Your task to perform on an android device: Is it going to rain this weekend? Image 0: 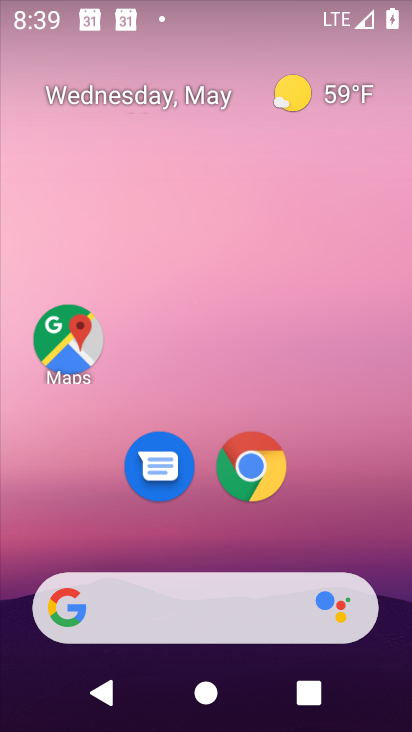
Step 0: click (249, 461)
Your task to perform on an android device: Is it going to rain this weekend? Image 1: 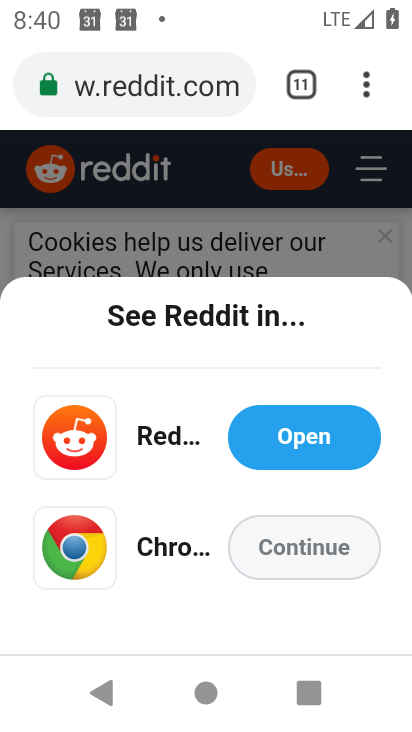
Step 1: press home button
Your task to perform on an android device: Is it going to rain this weekend? Image 2: 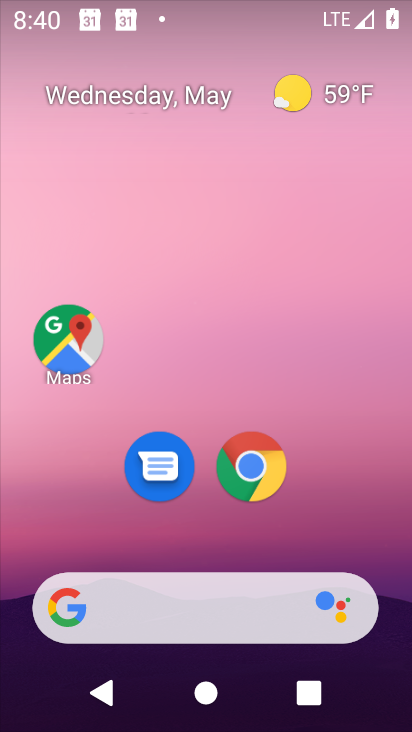
Step 2: click (252, 463)
Your task to perform on an android device: Is it going to rain this weekend? Image 3: 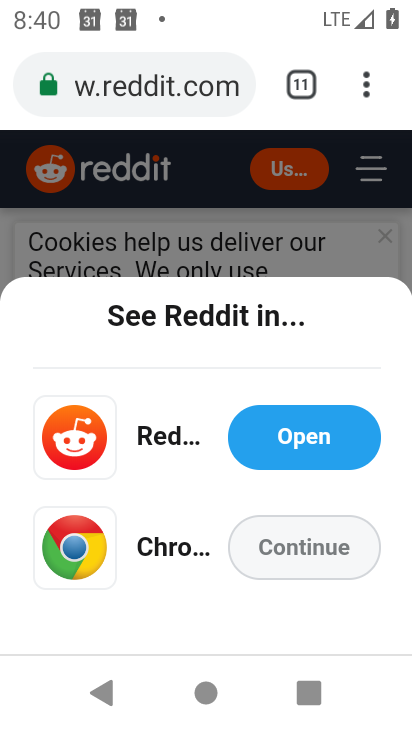
Step 3: click (338, 87)
Your task to perform on an android device: Is it going to rain this weekend? Image 4: 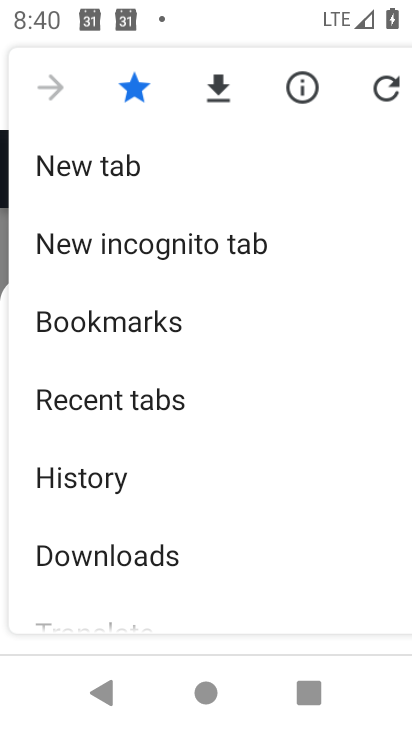
Step 4: click (76, 162)
Your task to perform on an android device: Is it going to rain this weekend? Image 5: 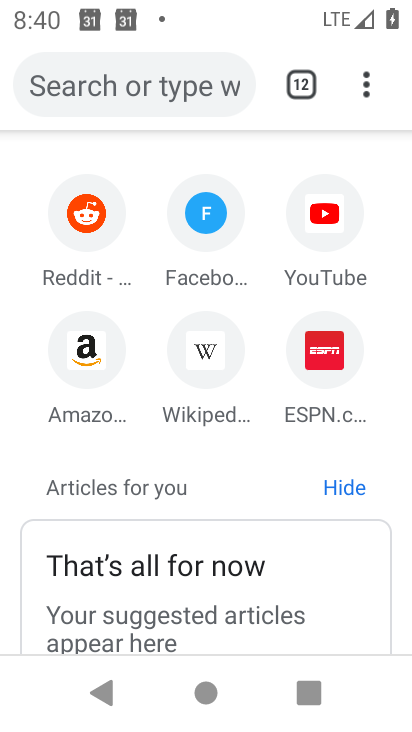
Step 5: click (140, 62)
Your task to perform on an android device: Is it going to rain this weekend? Image 6: 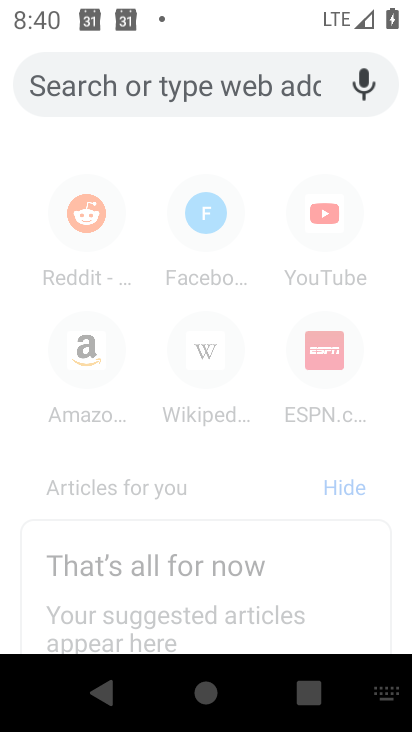
Step 6: type "Is it going to rain this weekend?"
Your task to perform on an android device: Is it going to rain this weekend? Image 7: 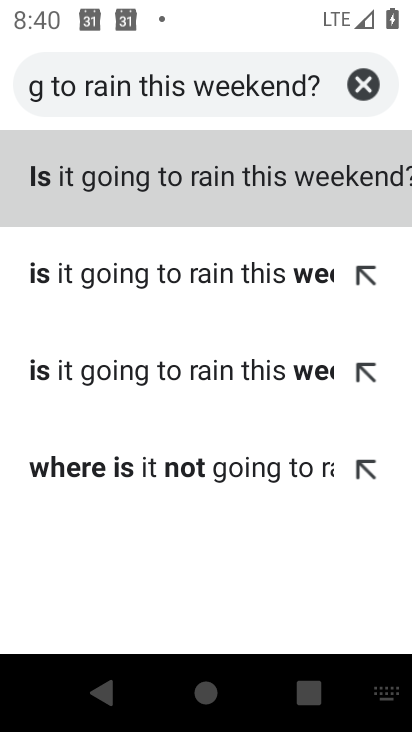
Step 7: click (322, 174)
Your task to perform on an android device: Is it going to rain this weekend? Image 8: 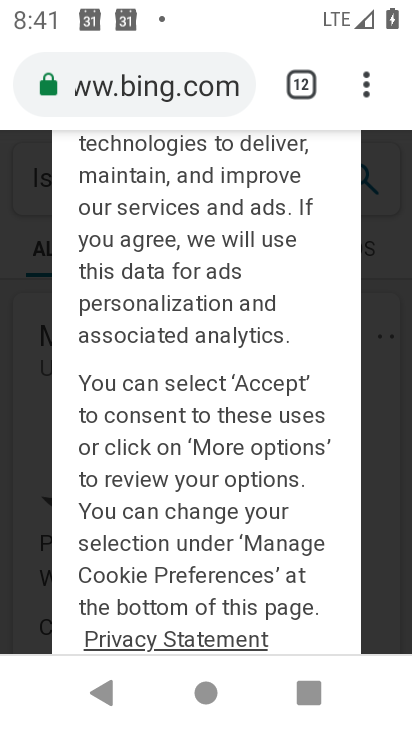
Step 8: task complete